Your task to perform on an android device: turn on wifi Image 0: 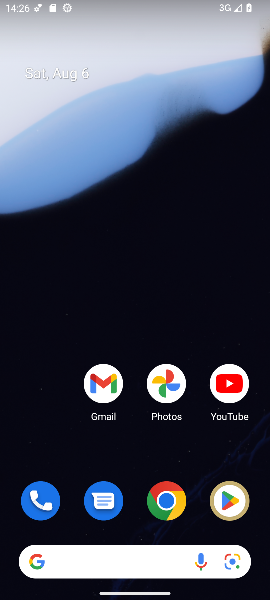
Step 0: press home button
Your task to perform on an android device: turn on wifi Image 1: 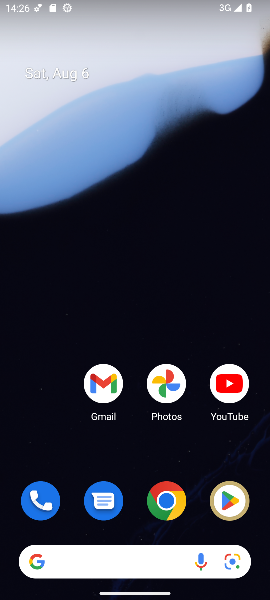
Step 1: drag from (135, 3) to (100, 475)
Your task to perform on an android device: turn on wifi Image 2: 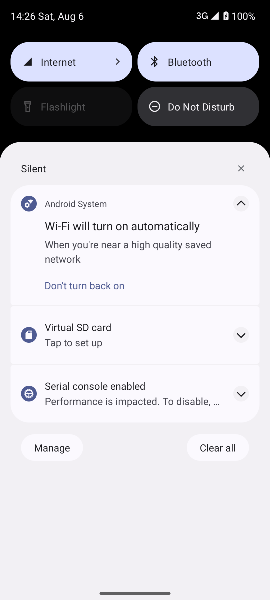
Step 2: click (51, 63)
Your task to perform on an android device: turn on wifi Image 3: 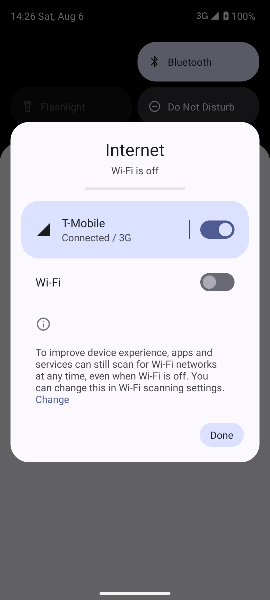
Step 3: click (204, 283)
Your task to perform on an android device: turn on wifi Image 4: 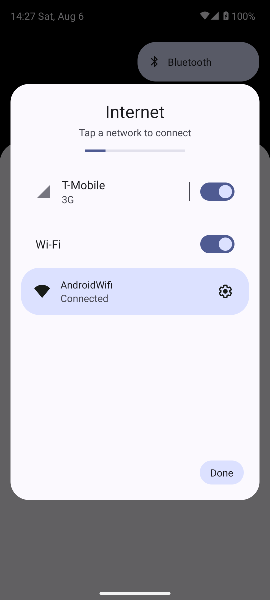
Step 4: task complete